Your task to perform on an android device: change notifications settings Image 0: 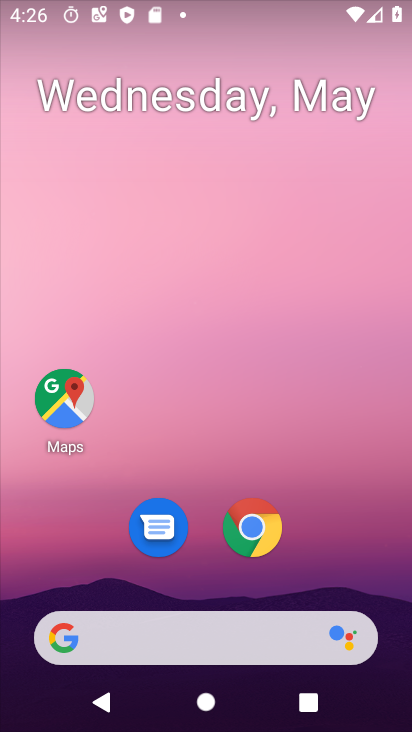
Step 0: drag from (337, 542) to (310, 173)
Your task to perform on an android device: change notifications settings Image 1: 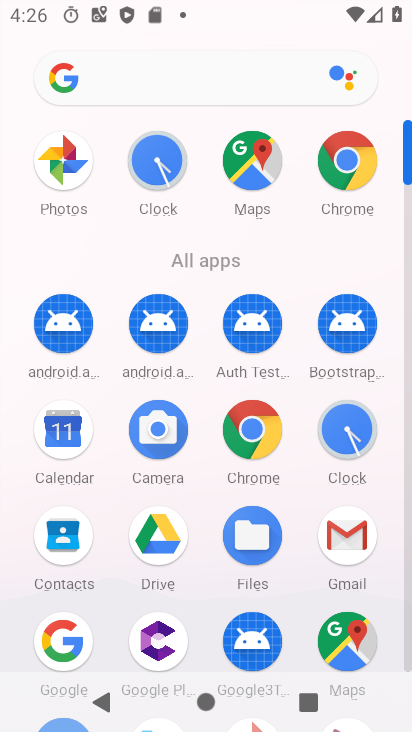
Step 1: drag from (224, 287) to (225, 147)
Your task to perform on an android device: change notifications settings Image 2: 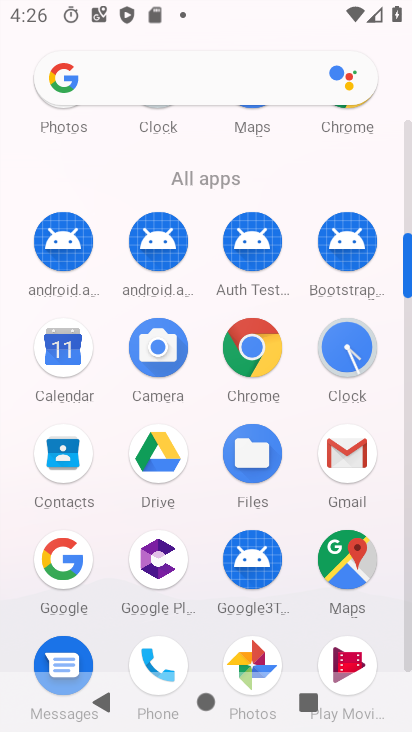
Step 2: drag from (193, 259) to (217, 94)
Your task to perform on an android device: change notifications settings Image 3: 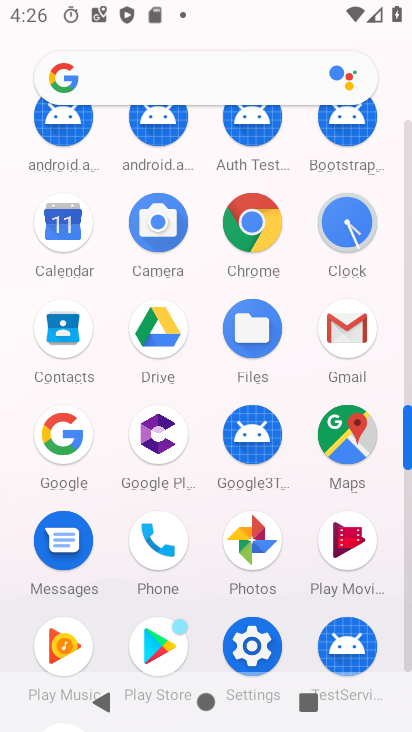
Step 3: click (244, 634)
Your task to perform on an android device: change notifications settings Image 4: 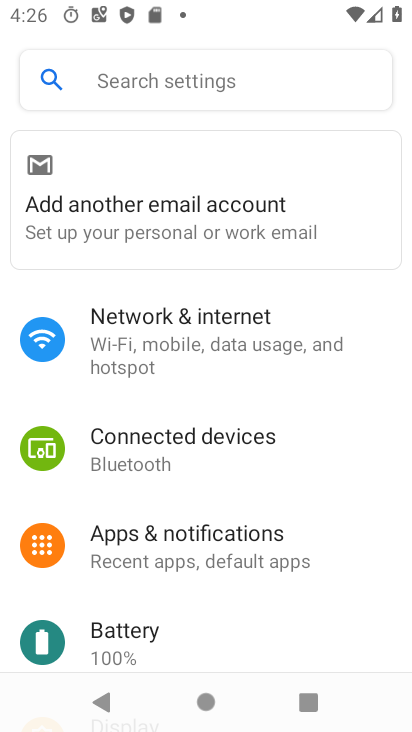
Step 4: click (197, 538)
Your task to perform on an android device: change notifications settings Image 5: 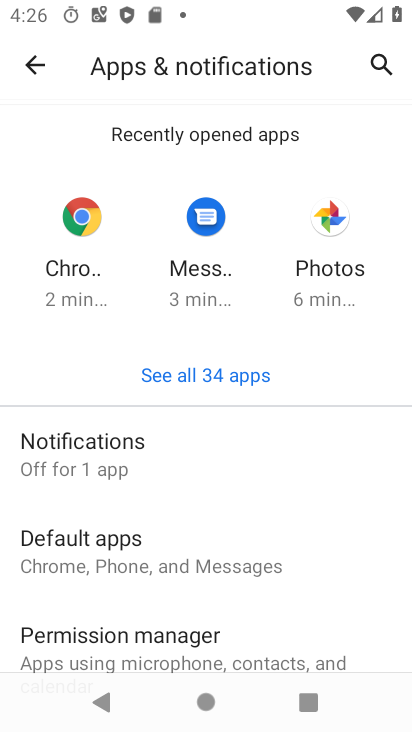
Step 5: click (111, 458)
Your task to perform on an android device: change notifications settings Image 6: 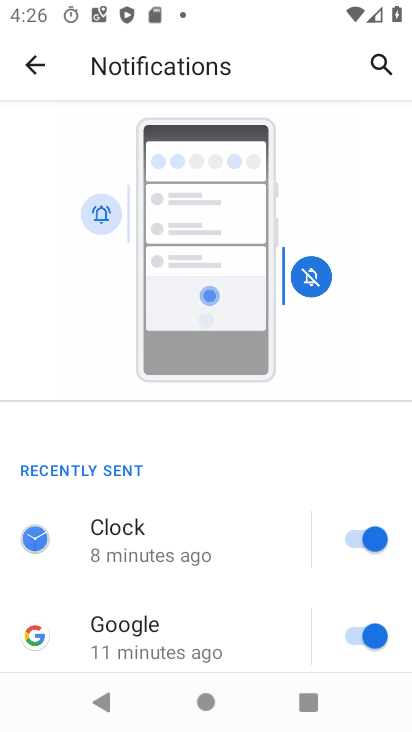
Step 6: drag from (224, 602) to (193, 256)
Your task to perform on an android device: change notifications settings Image 7: 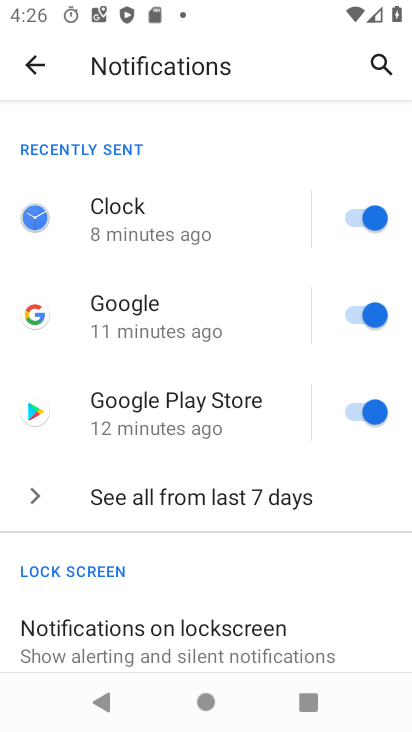
Step 7: drag from (248, 568) to (223, 229)
Your task to perform on an android device: change notifications settings Image 8: 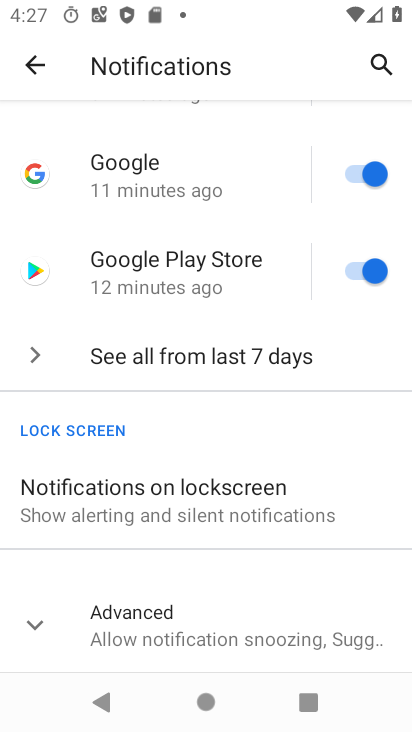
Step 8: click (145, 499)
Your task to perform on an android device: change notifications settings Image 9: 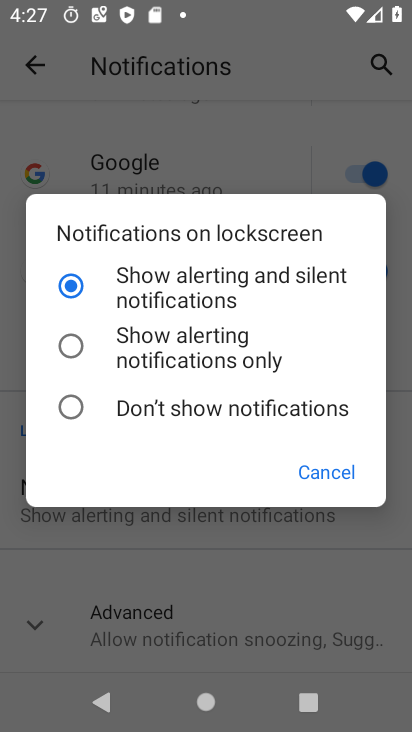
Step 9: click (112, 353)
Your task to perform on an android device: change notifications settings Image 10: 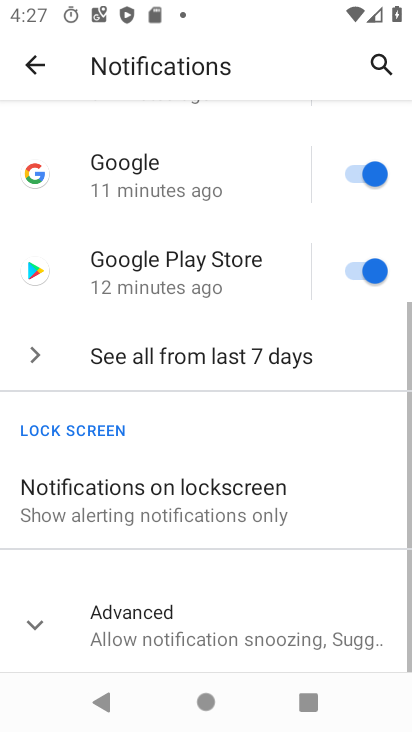
Step 10: task complete